Your task to perform on an android device: change the clock display to analog Image 0: 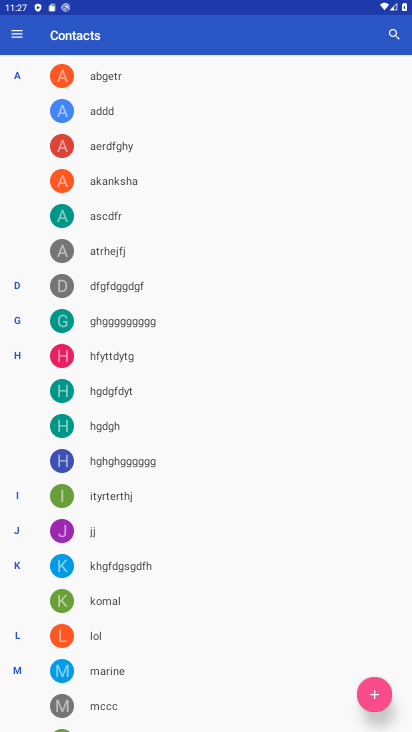
Step 0: press home button
Your task to perform on an android device: change the clock display to analog Image 1: 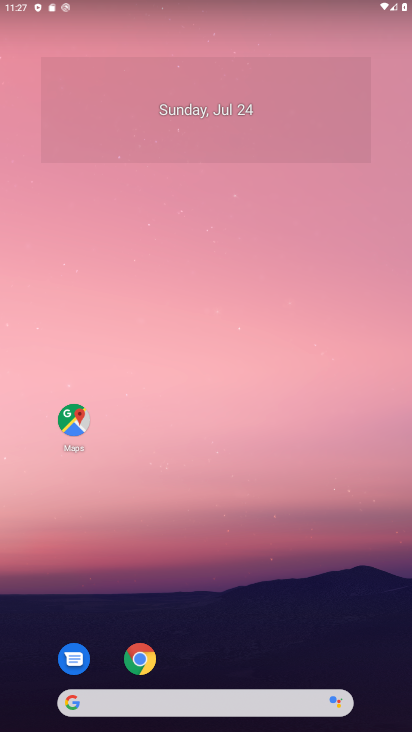
Step 1: drag from (122, 336) to (230, 60)
Your task to perform on an android device: change the clock display to analog Image 2: 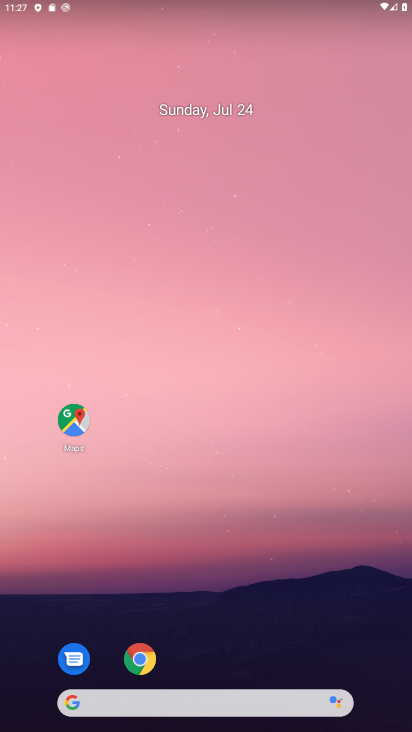
Step 2: drag from (35, 708) to (171, 7)
Your task to perform on an android device: change the clock display to analog Image 3: 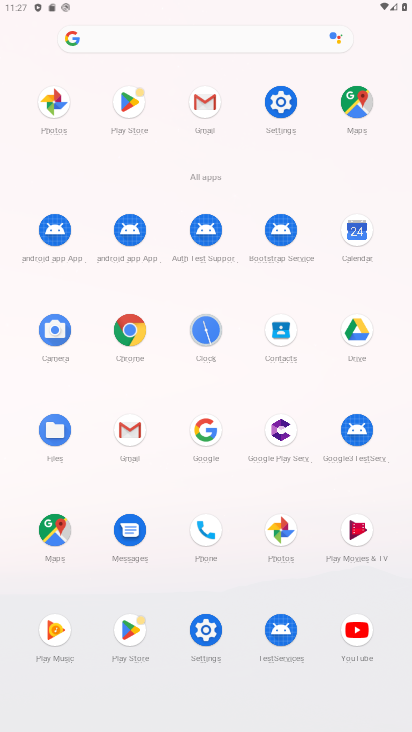
Step 3: click (208, 336)
Your task to perform on an android device: change the clock display to analog Image 4: 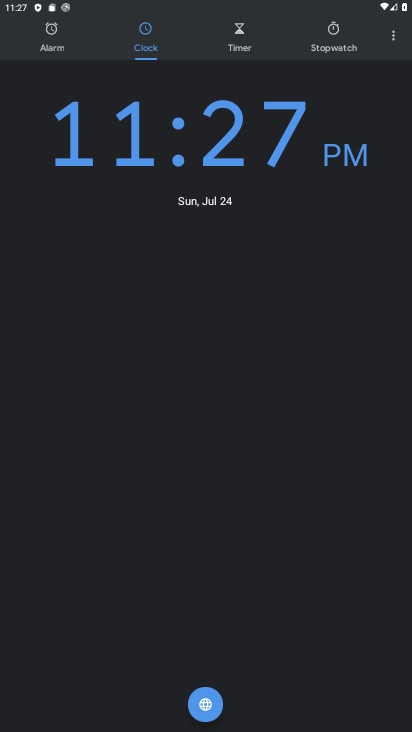
Step 4: click (391, 36)
Your task to perform on an android device: change the clock display to analog Image 5: 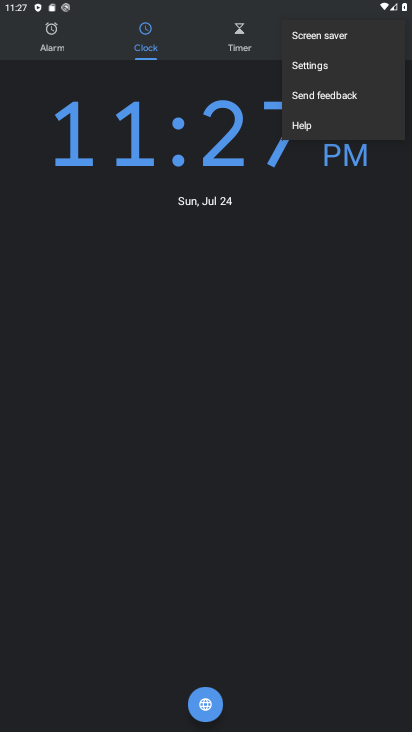
Step 5: click (330, 64)
Your task to perform on an android device: change the clock display to analog Image 6: 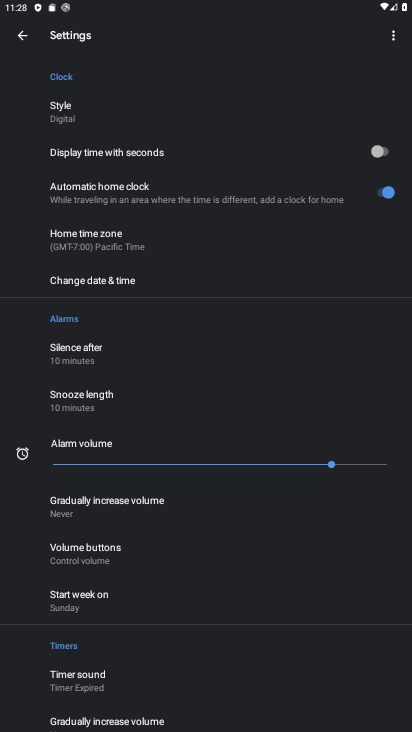
Step 6: click (103, 110)
Your task to perform on an android device: change the clock display to analog Image 7: 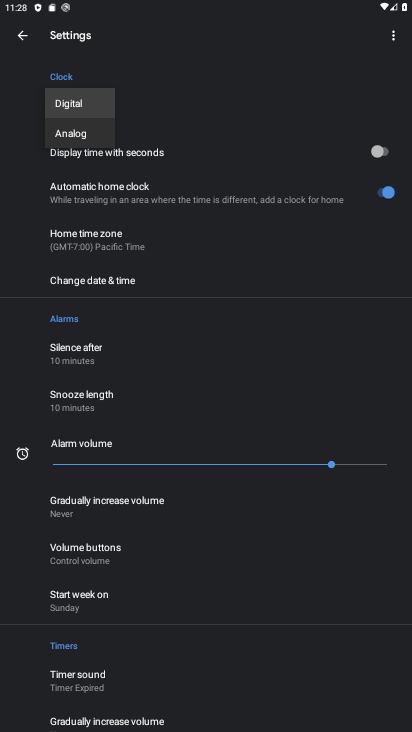
Step 7: click (76, 139)
Your task to perform on an android device: change the clock display to analog Image 8: 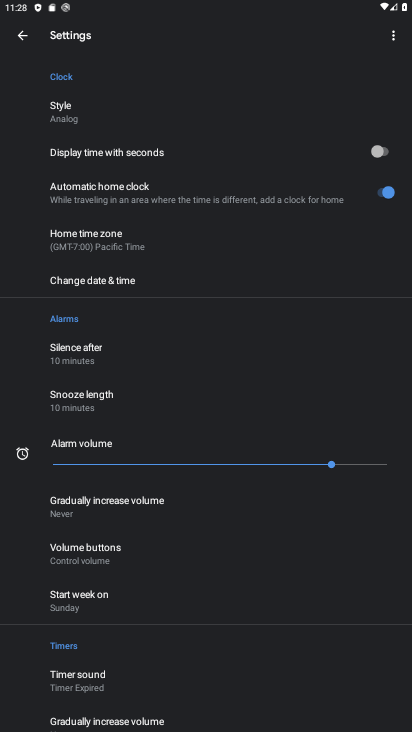
Step 8: task complete